Your task to perform on an android device: toggle pop-ups in chrome Image 0: 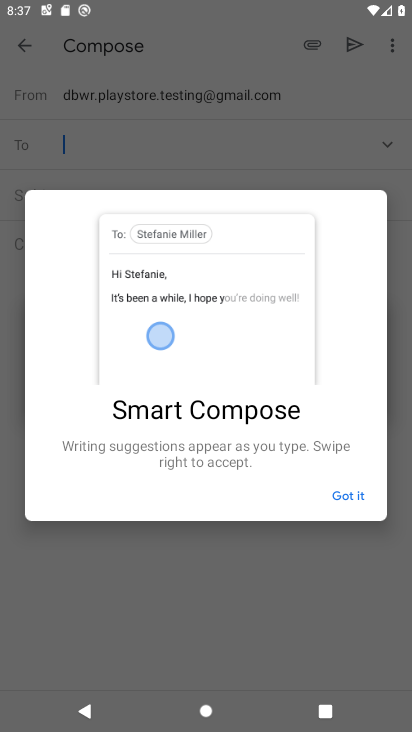
Step 0: press home button
Your task to perform on an android device: toggle pop-ups in chrome Image 1: 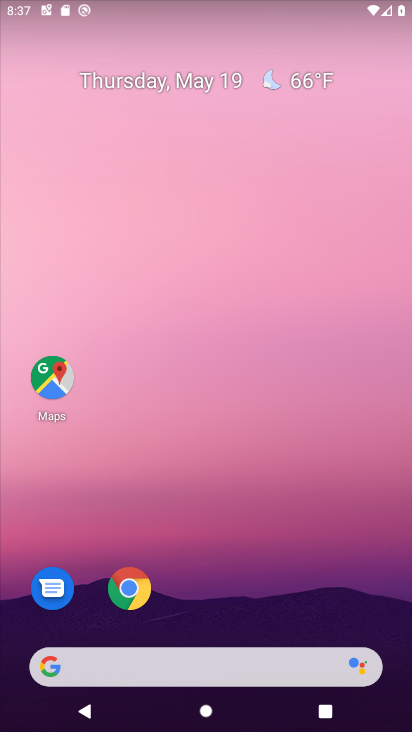
Step 1: drag from (351, 594) to (336, 199)
Your task to perform on an android device: toggle pop-ups in chrome Image 2: 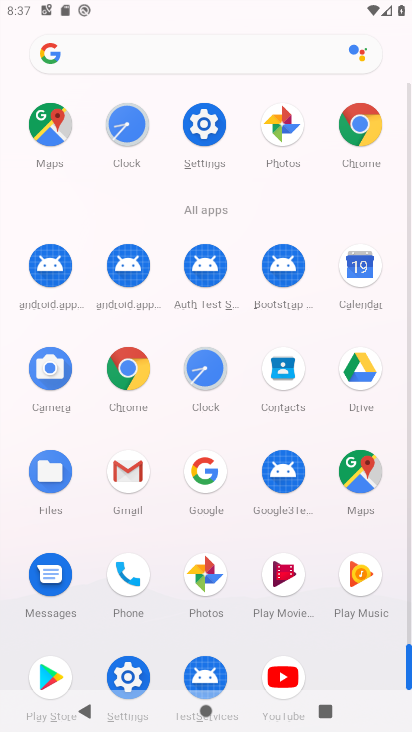
Step 2: click (147, 380)
Your task to perform on an android device: toggle pop-ups in chrome Image 3: 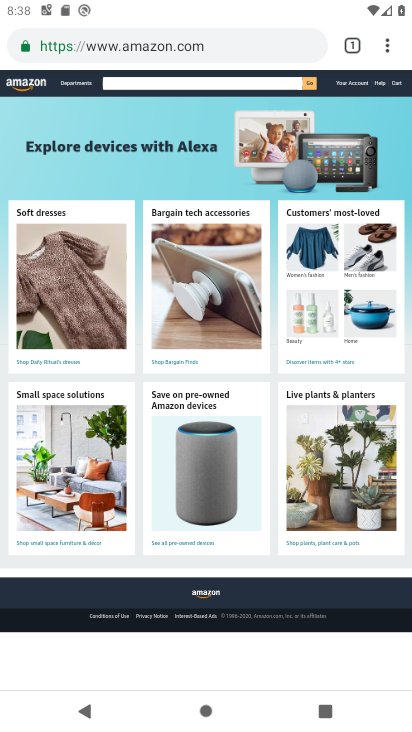
Step 3: click (387, 50)
Your task to perform on an android device: toggle pop-ups in chrome Image 4: 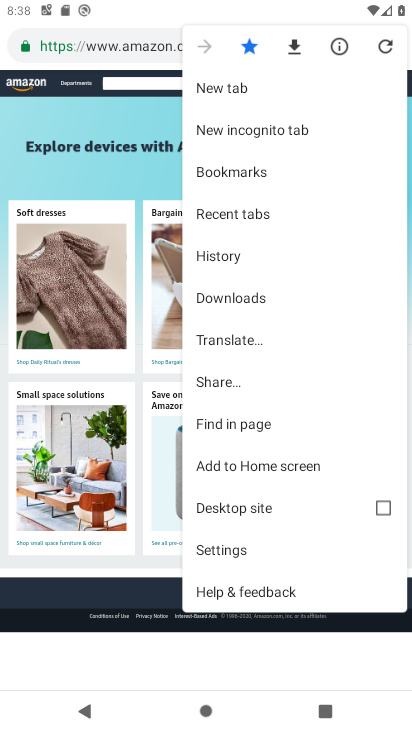
Step 4: drag from (341, 431) to (337, 253)
Your task to perform on an android device: toggle pop-ups in chrome Image 5: 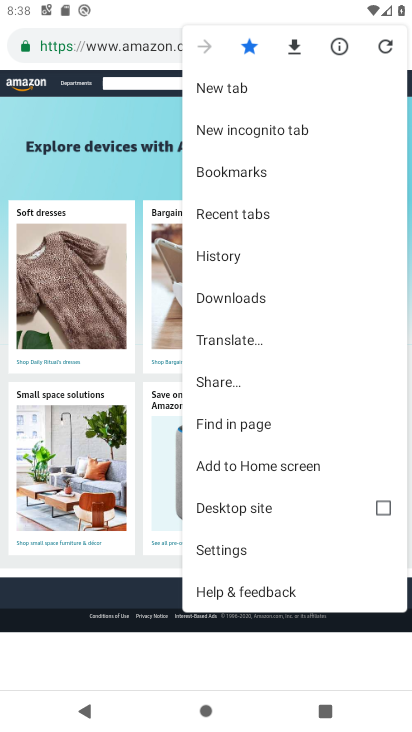
Step 5: click (247, 553)
Your task to perform on an android device: toggle pop-ups in chrome Image 6: 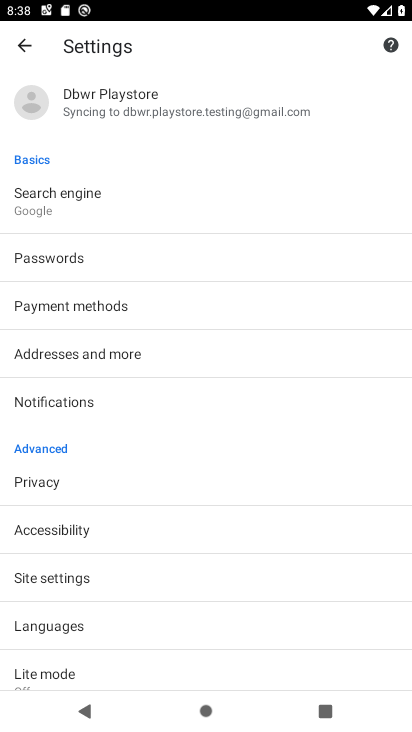
Step 6: drag from (256, 632) to (266, 484)
Your task to perform on an android device: toggle pop-ups in chrome Image 7: 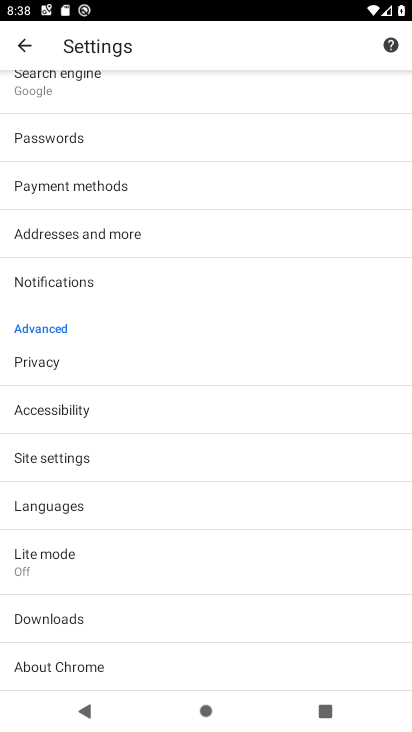
Step 7: drag from (276, 621) to (273, 423)
Your task to perform on an android device: toggle pop-ups in chrome Image 8: 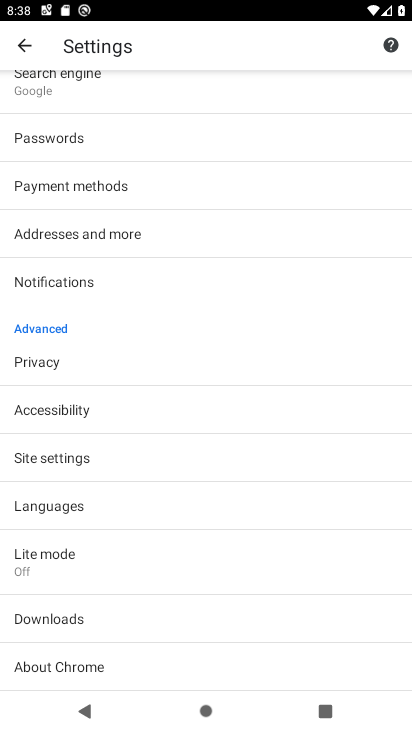
Step 8: drag from (265, 549) to (293, 349)
Your task to perform on an android device: toggle pop-ups in chrome Image 9: 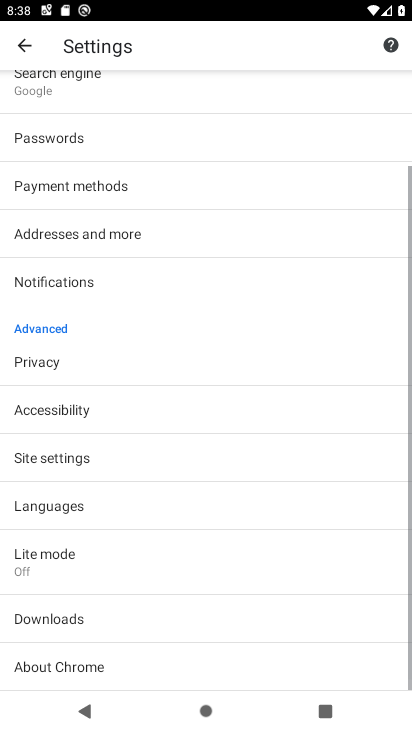
Step 9: drag from (301, 314) to (292, 416)
Your task to perform on an android device: toggle pop-ups in chrome Image 10: 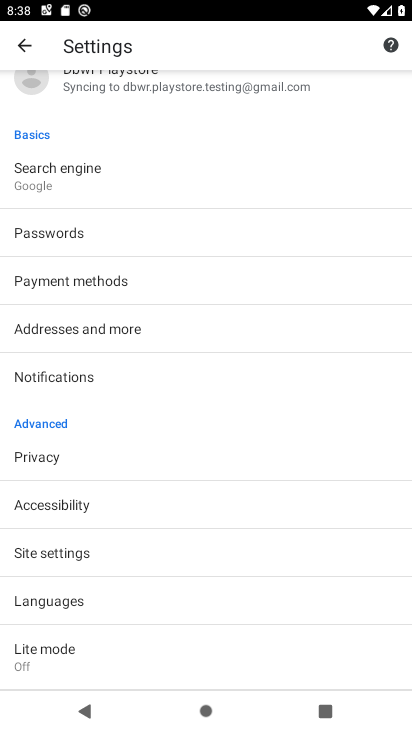
Step 10: drag from (304, 298) to (302, 429)
Your task to perform on an android device: toggle pop-ups in chrome Image 11: 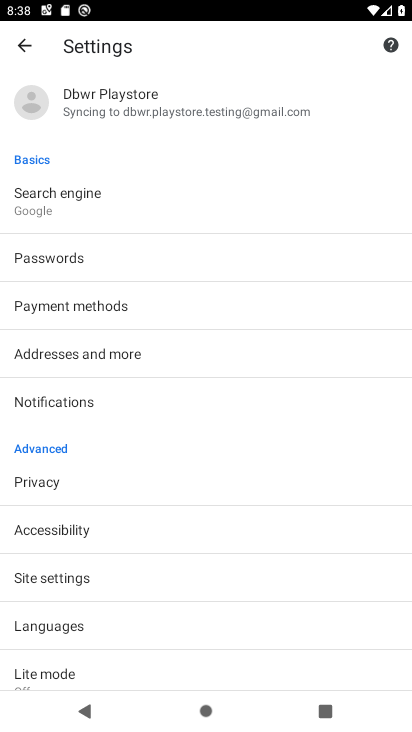
Step 11: drag from (307, 330) to (310, 478)
Your task to perform on an android device: toggle pop-ups in chrome Image 12: 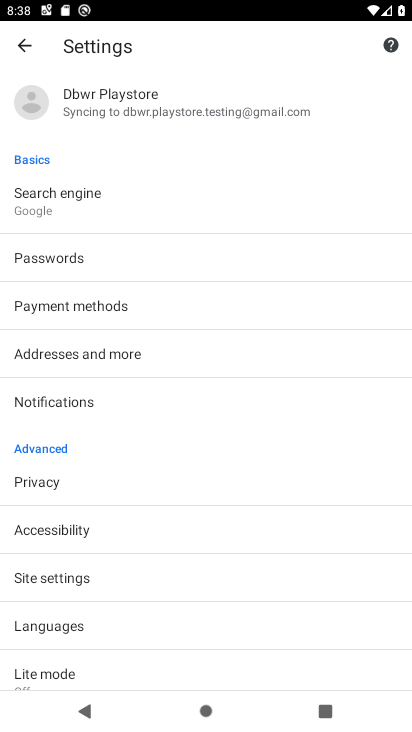
Step 12: click (273, 581)
Your task to perform on an android device: toggle pop-ups in chrome Image 13: 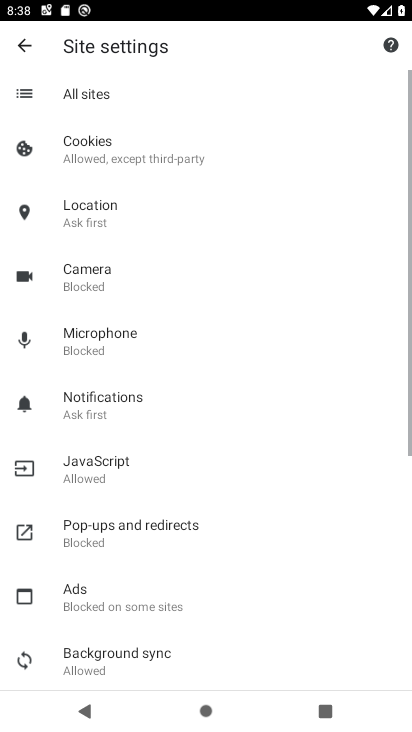
Step 13: drag from (278, 596) to (277, 504)
Your task to perform on an android device: toggle pop-ups in chrome Image 14: 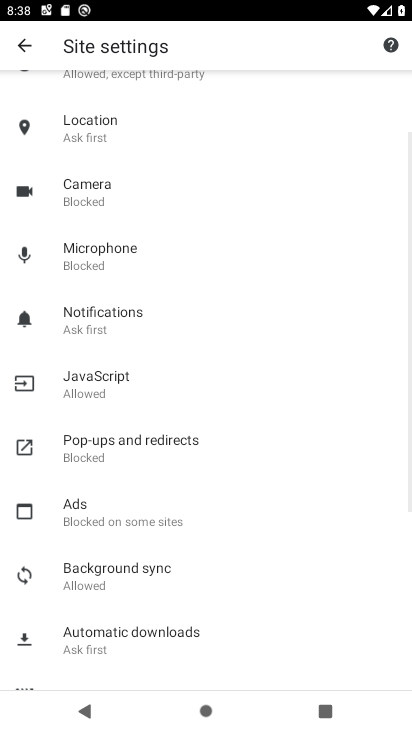
Step 14: drag from (277, 628) to (292, 518)
Your task to perform on an android device: toggle pop-ups in chrome Image 15: 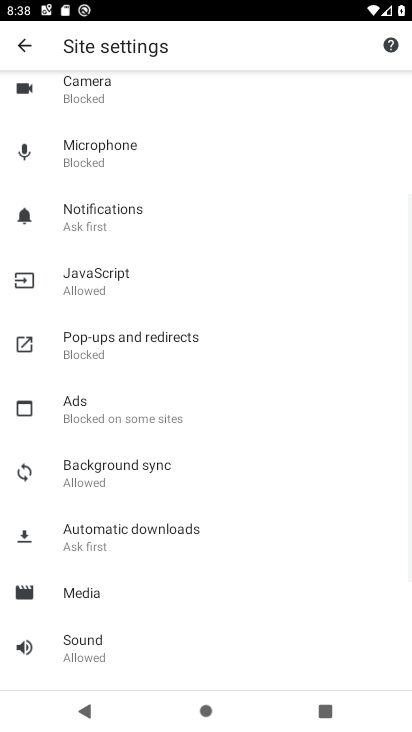
Step 15: drag from (291, 598) to (291, 489)
Your task to perform on an android device: toggle pop-ups in chrome Image 16: 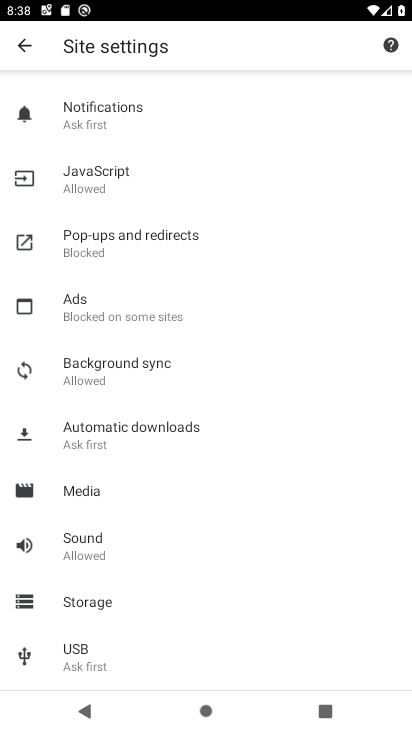
Step 16: drag from (297, 621) to (305, 456)
Your task to perform on an android device: toggle pop-ups in chrome Image 17: 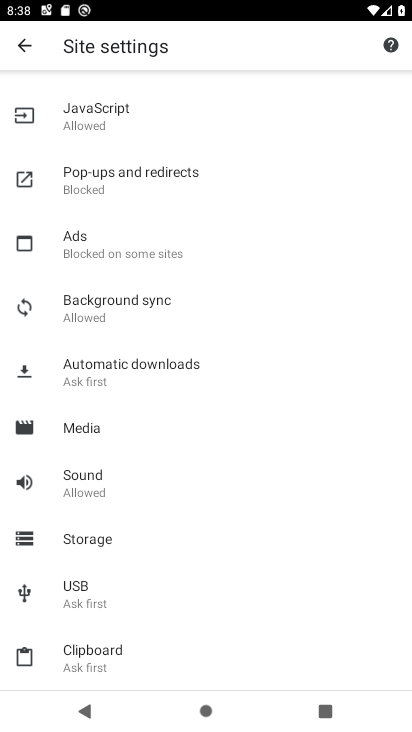
Step 17: drag from (298, 357) to (284, 425)
Your task to perform on an android device: toggle pop-ups in chrome Image 18: 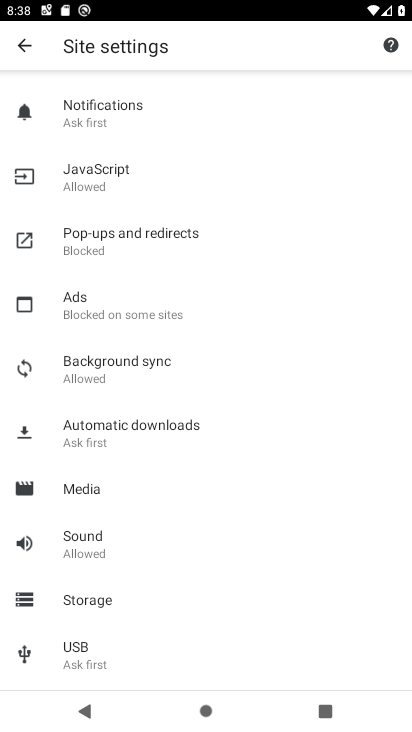
Step 18: drag from (286, 345) to (284, 433)
Your task to perform on an android device: toggle pop-ups in chrome Image 19: 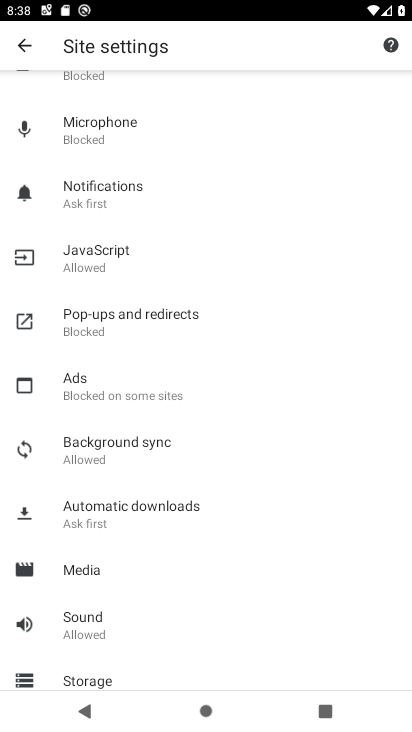
Step 19: drag from (292, 374) to (285, 449)
Your task to perform on an android device: toggle pop-ups in chrome Image 20: 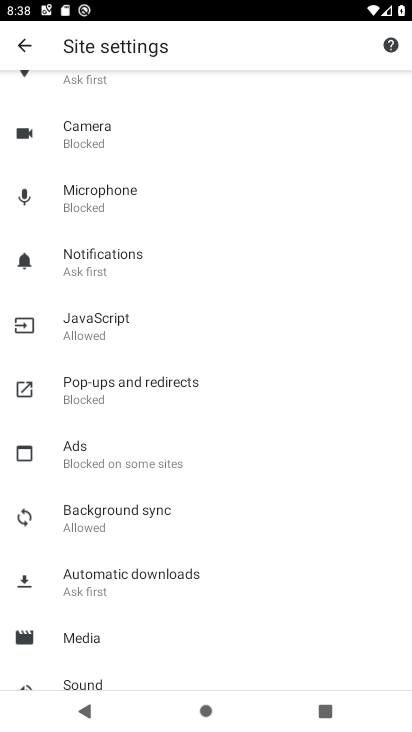
Step 20: click (218, 397)
Your task to perform on an android device: toggle pop-ups in chrome Image 21: 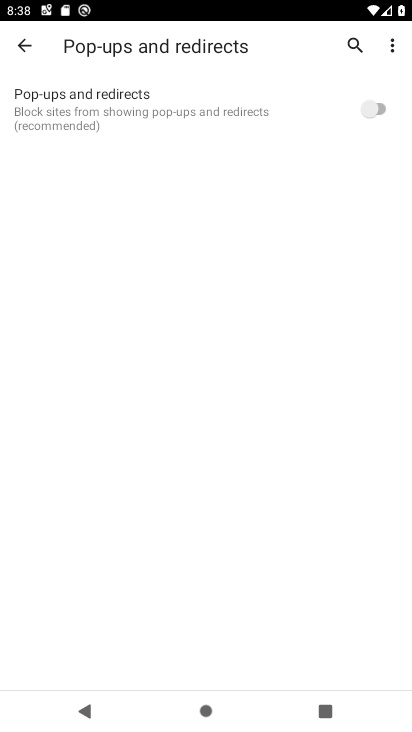
Step 21: click (385, 104)
Your task to perform on an android device: toggle pop-ups in chrome Image 22: 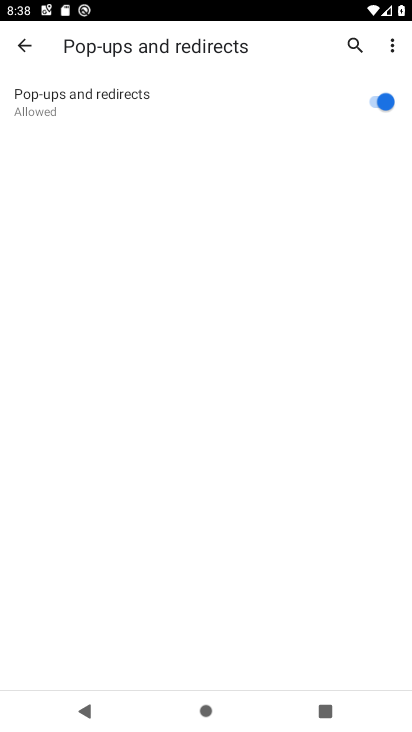
Step 22: task complete